Your task to perform on an android device: Check the weather Image 0: 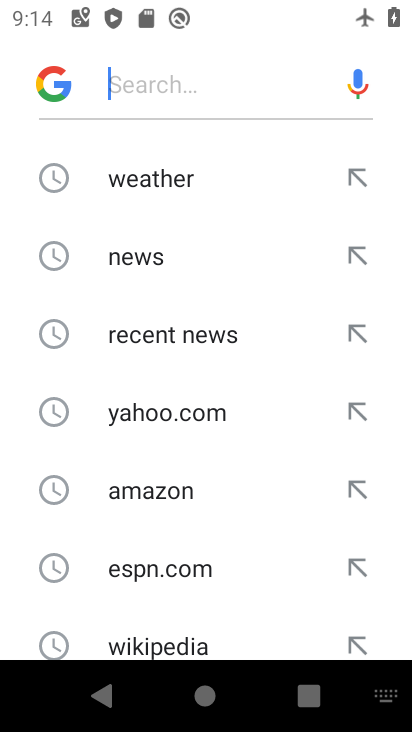
Step 0: click (162, 181)
Your task to perform on an android device: Check the weather Image 1: 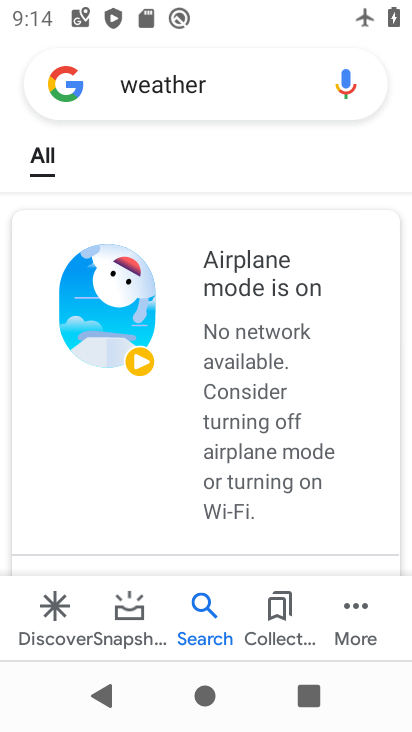
Step 1: task complete